Your task to perform on an android device: open wifi settings Image 0: 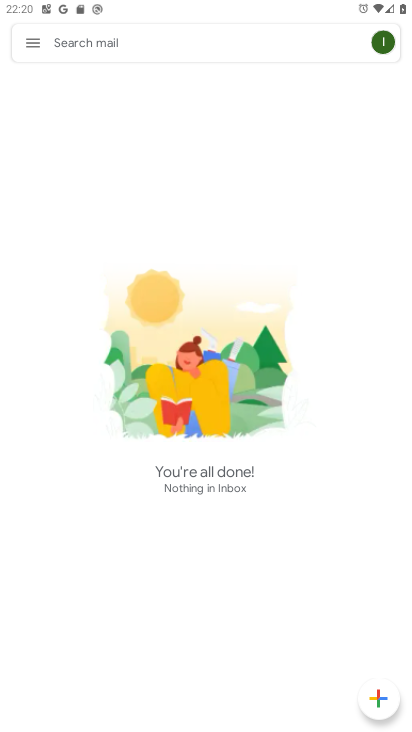
Step 0: drag from (275, 17) to (270, 439)
Your task to perform on an android device: open wifi settings Image 1: 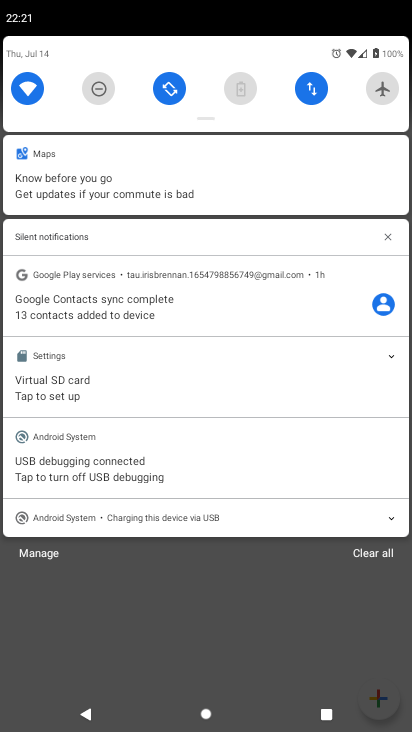
Step 1: click (21, 89)
Your task to perform on an android device: open wifi settings Image 2: 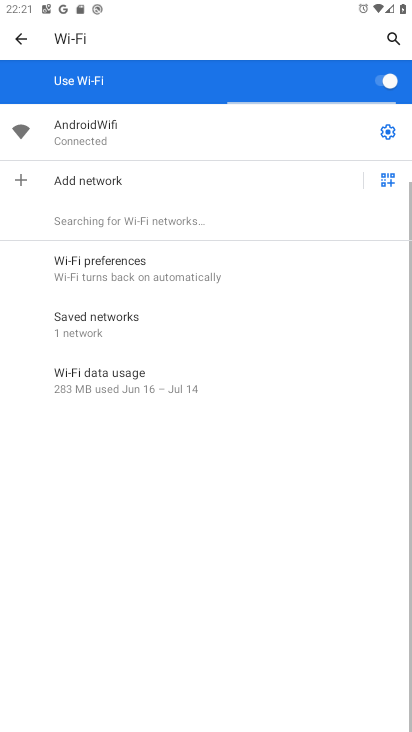
Step 2: task complete